Your task to perform on an android device: Search for top rated burger restaurants on Google Maps Image 0: 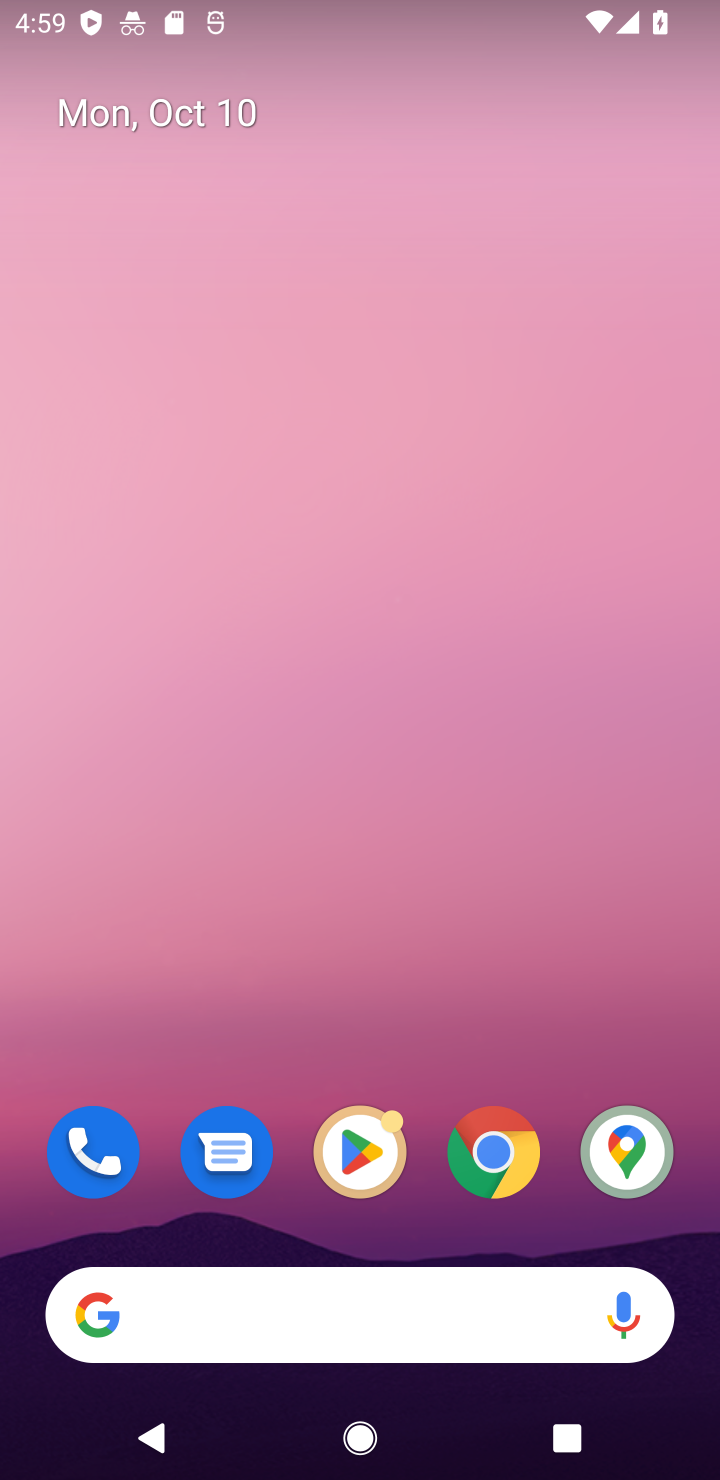
Step 0: click (630, 1152)
Your task to perform on an android device: Search for top rated burger restaurants on Google Maps Image 1: 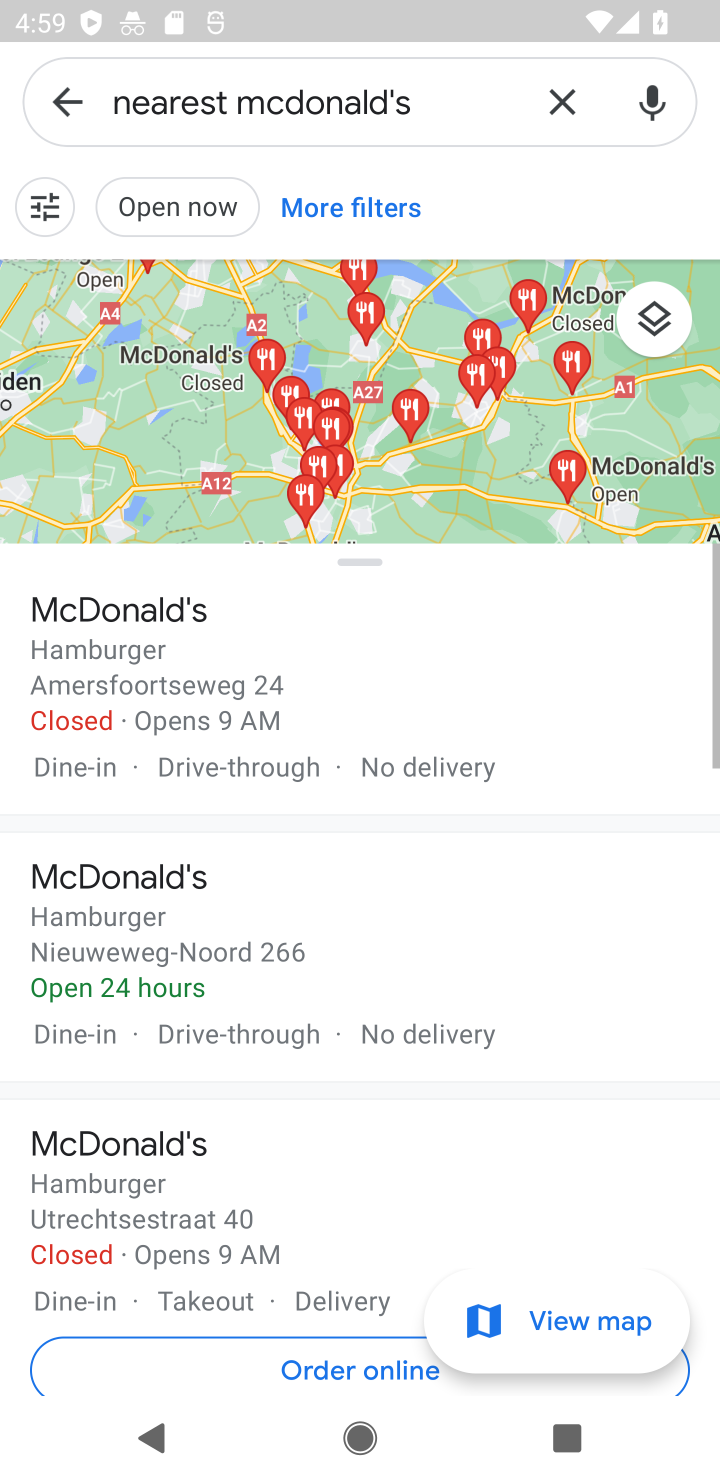
Step 1: click (555, 94)
Your task to perform on an android device: Search for top rated burger restaurants on Google Maps Image 2: 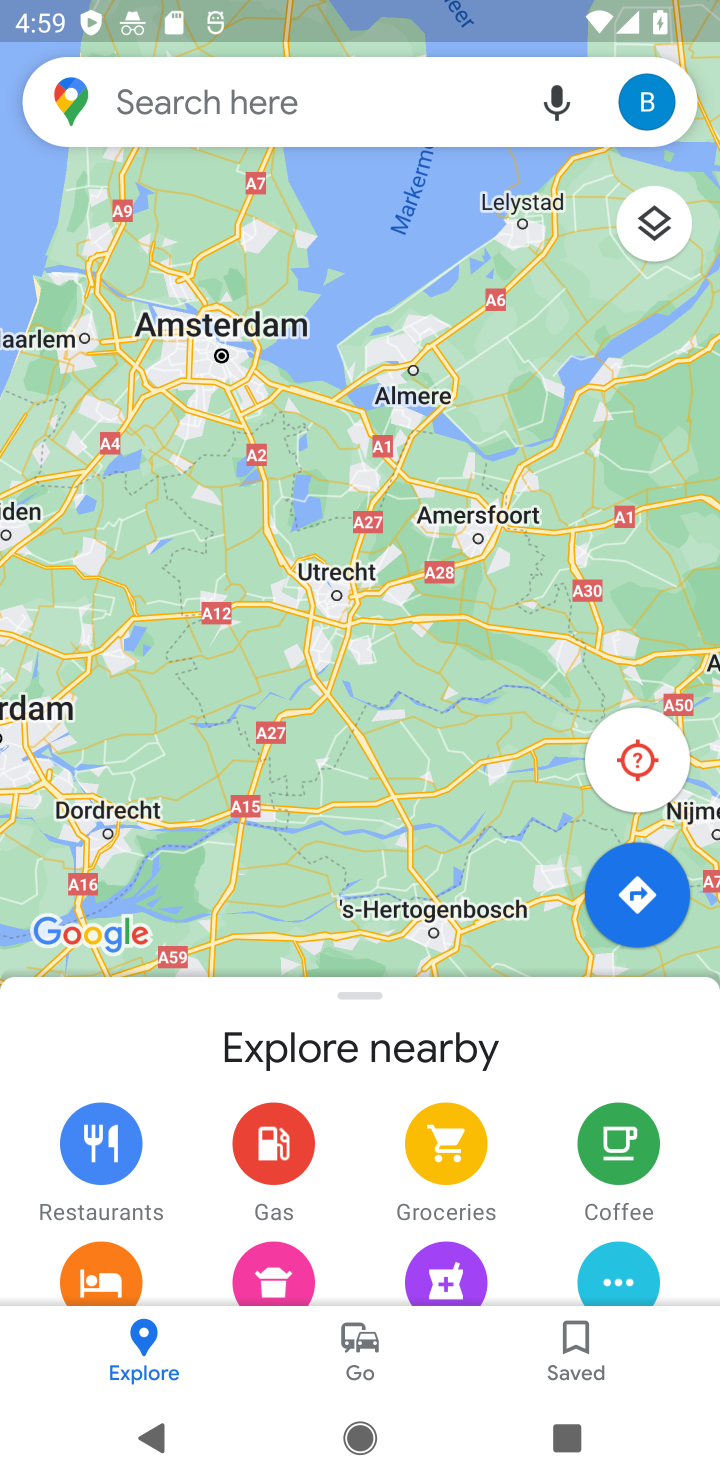
Step 2: click (369, 110)
Your task to perform on an android device: Search for top rated burger restaurants on Google Maps Image 3: 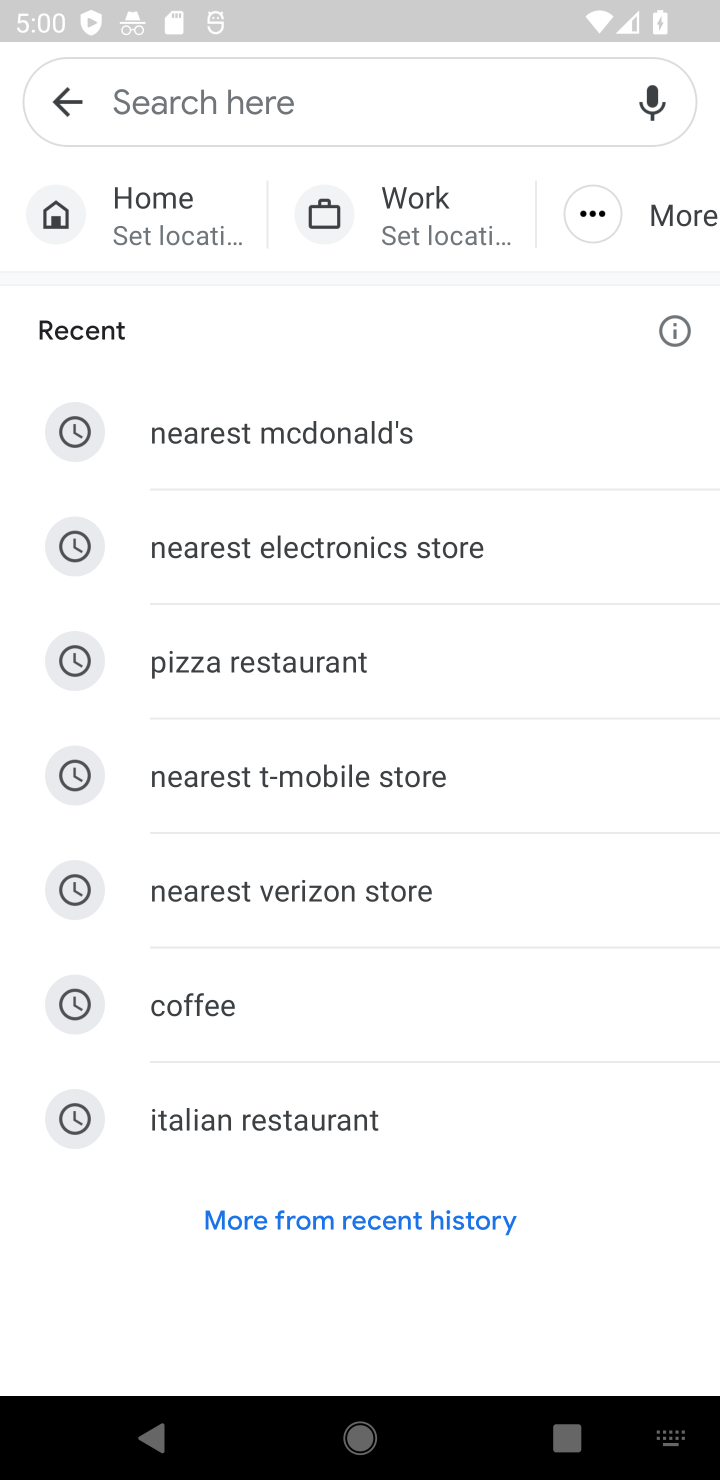
Step 3: type "burger restaurants"
Your task to perform on an android device: Search for top rated burger restaurants on Google Maps Image 4: 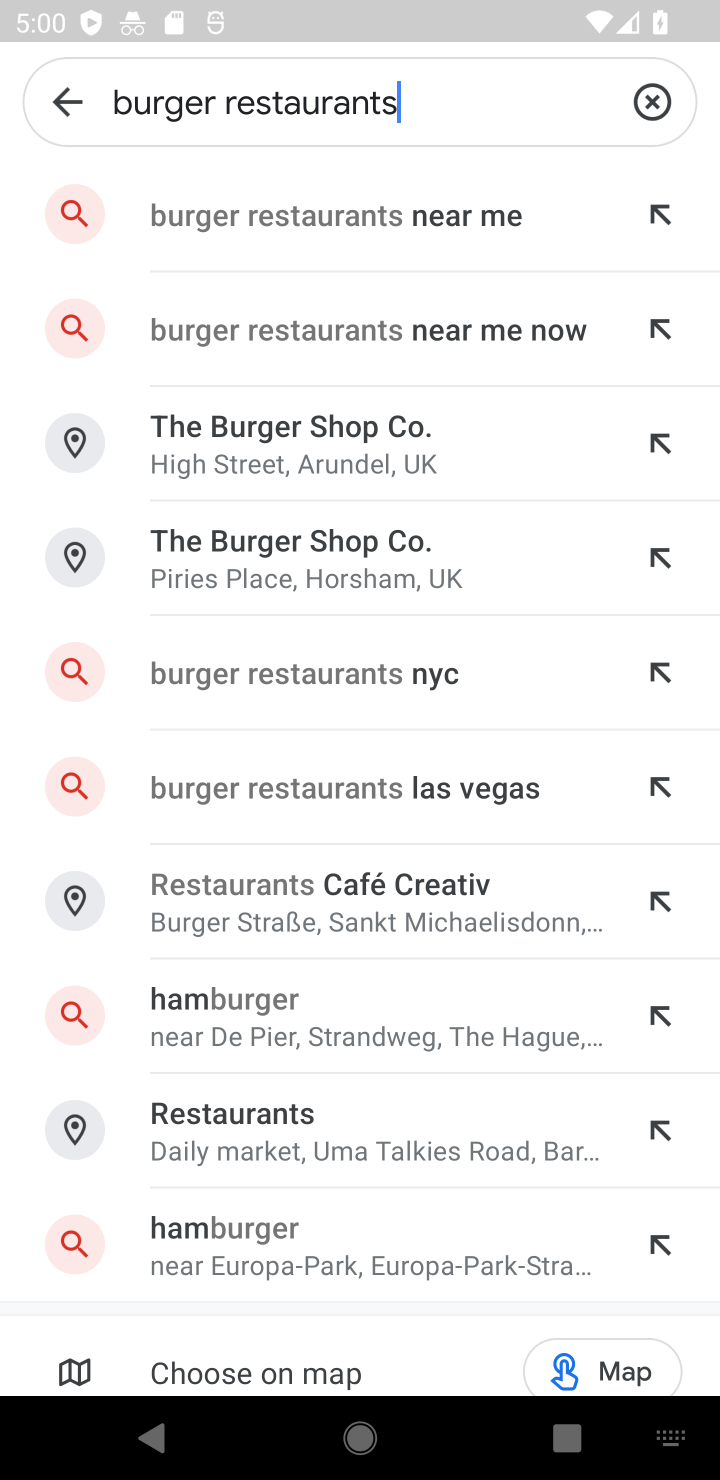
Step 4: click (263, 214)
Your task to perform on an android device: Search for top rated burger restaurants on Google Maps Image 5: 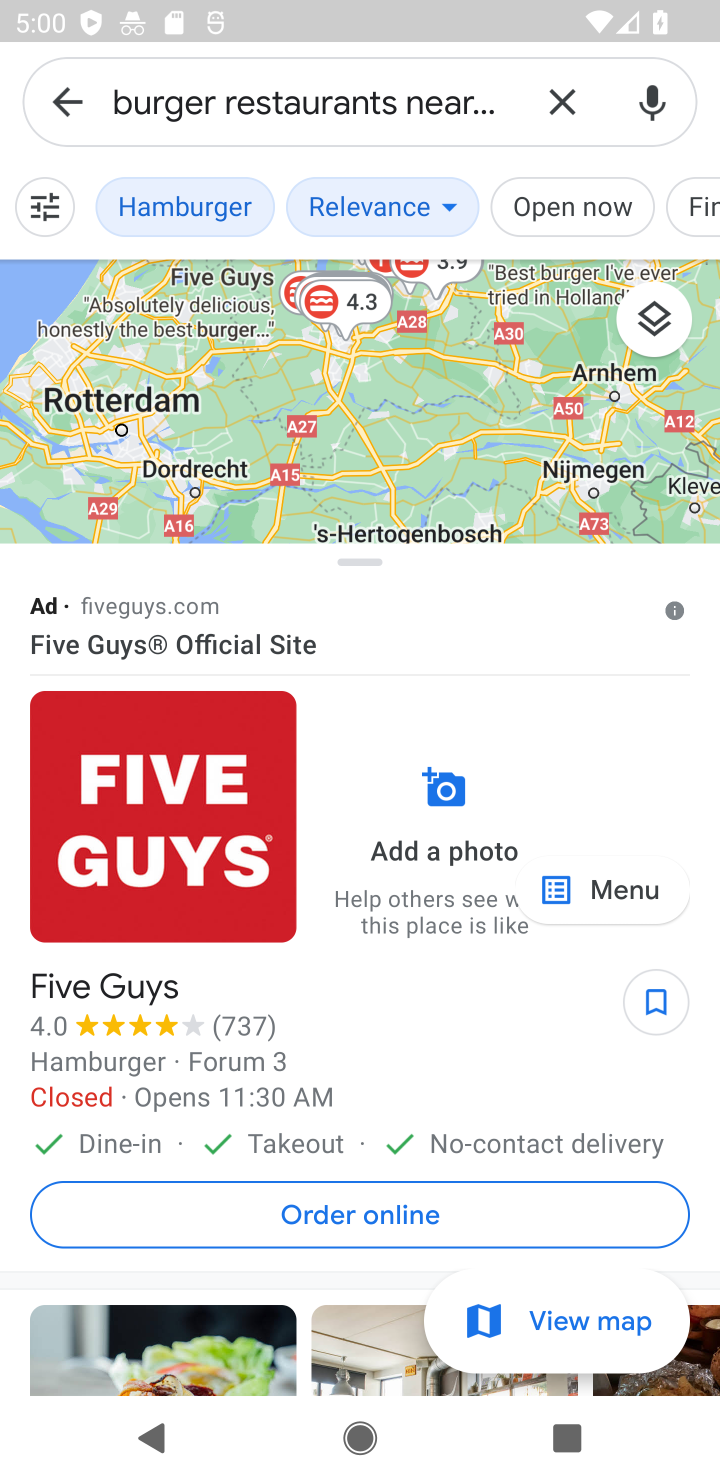
Step 5: drag from (612, 220) to (171, 208)
Your task to perform on an android device: Search for top rated burger restaurants on Google Maps Image 6: 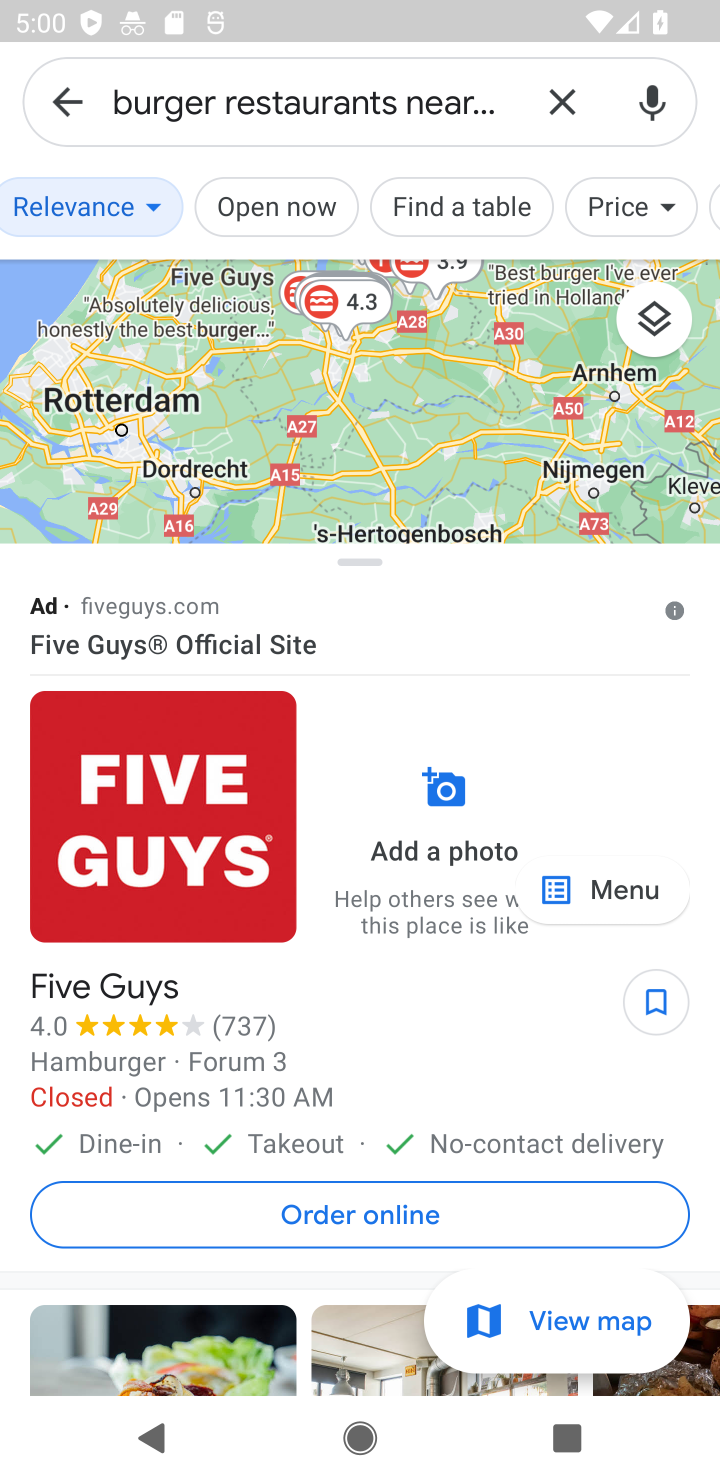
Step 6: drag from (540, 210) to (234, 231)
Your task to perform on an android device: Search for top rated burger restaurants on Google Maps Image 7: 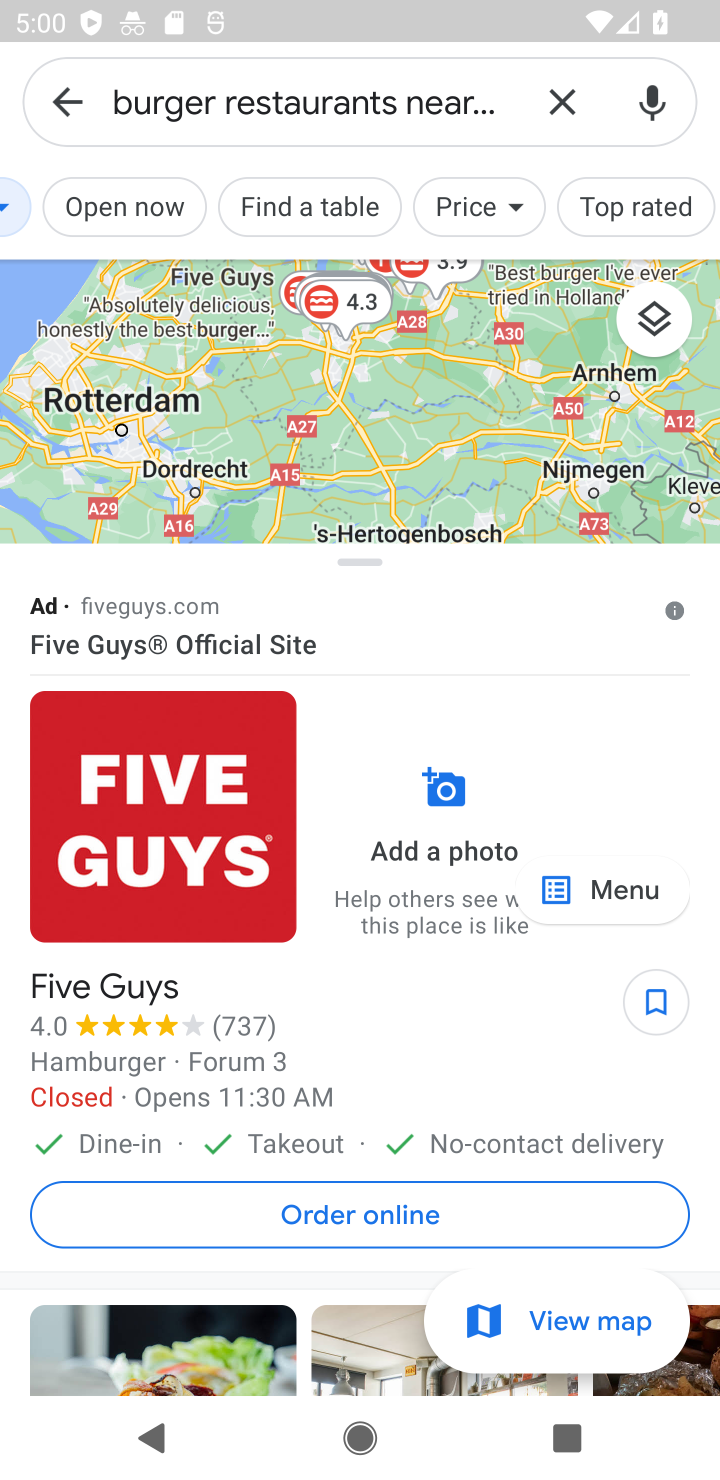
Step 7: click (667, 206)
Your task to perform on an android device: Search for top rated burger restaurants on Google Maps Image 8: 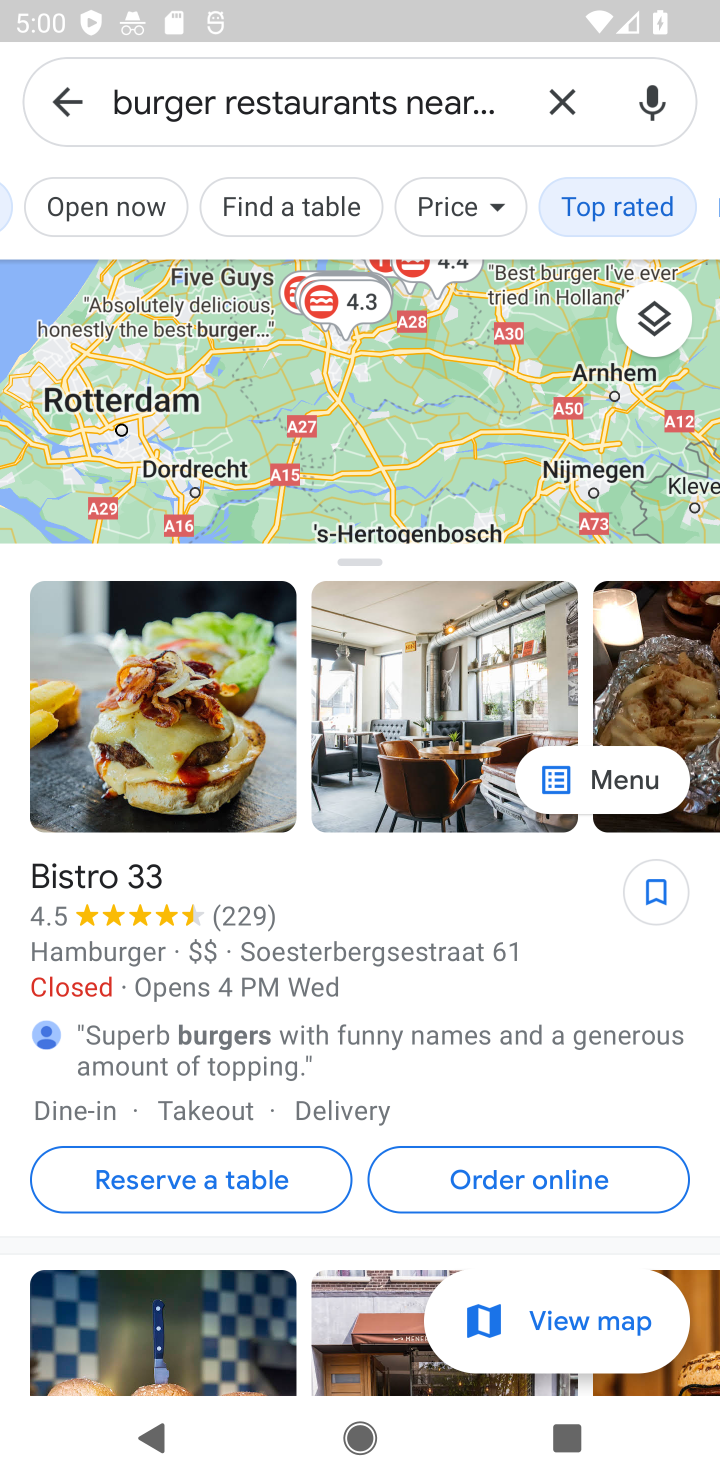
Step 8: task complete